Your task to perform on an android device: Open network settings Image 0: 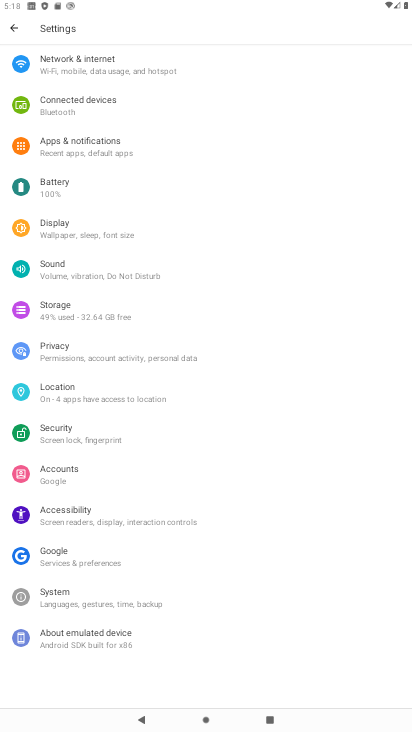
Step 0: press home button
Your task to perform on an android device: Open network settings Image 1: 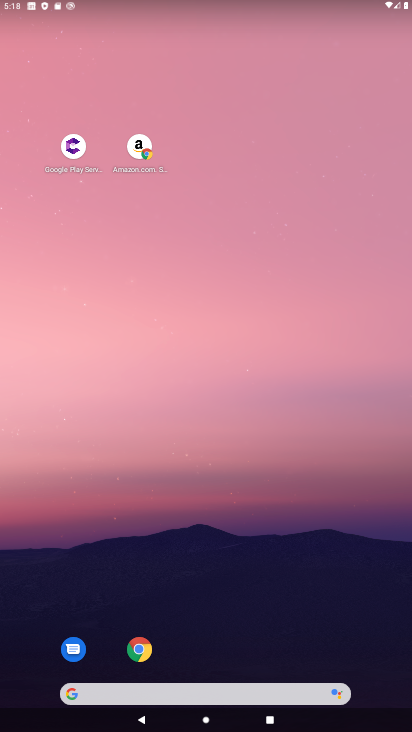
Step 1: drag from (179, 696) to (179, 182)
Your task to perform on an android device: Open network settings Image 2: 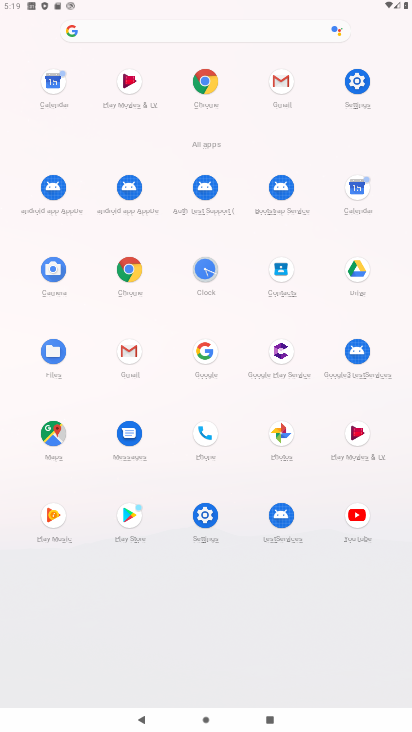
Step 2: click (358, 82)
Your task to perform on an android device: Open network settings Image 3: 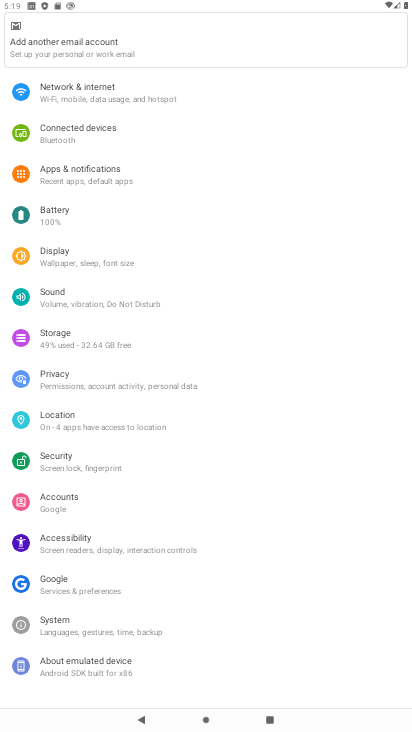
Step 3: click (112, 98)
Your task to perform on an android device: Open network settings Image 4: 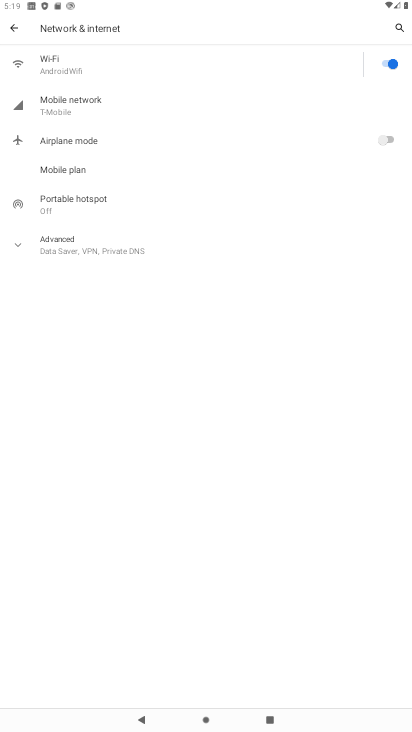
Step 4: task complete